Your task to perform on an android device: Search for seafood restaurants on Google Maps Image 0: 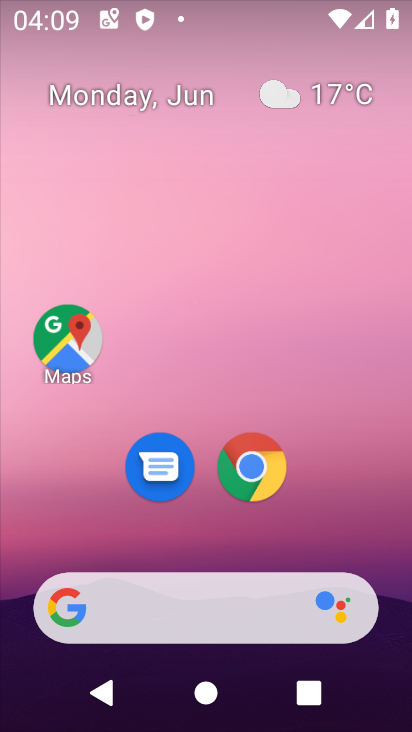
Step 0: click (259, 461)
Your task to perform on an android device: Search for seafood restaurants on Google Maps Image 1: 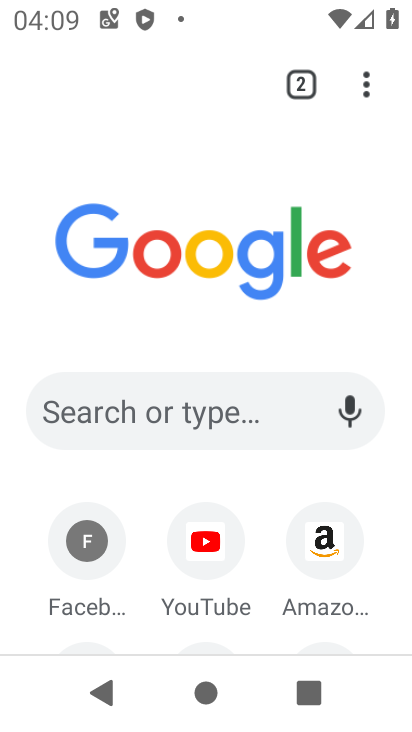
Step 1: press home button
Your task to perform on an android device: Search for seafood restaurants on Google Maps Image 2: 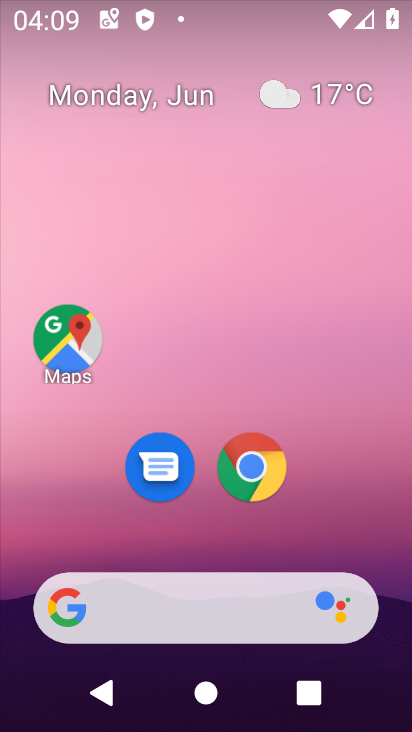
Step 2: click (73, 318)
Your task to perform on an android device: Search for seafood restaurants on Google Maps Image 3: 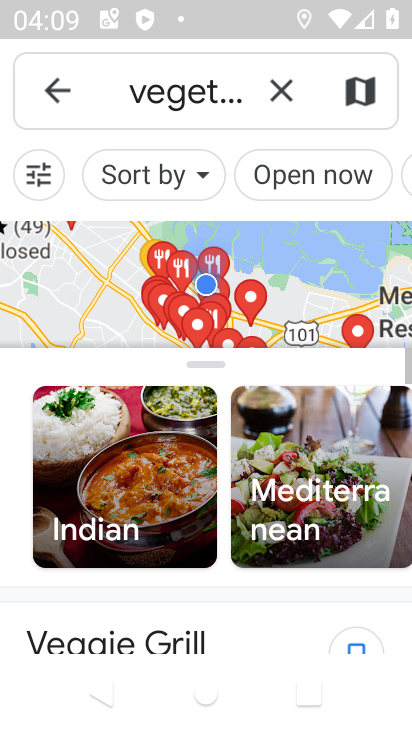
Step 3: click (281, 92)
Your task to perform on an android device: Search for seafood restaurants on Google Maps Image 4: 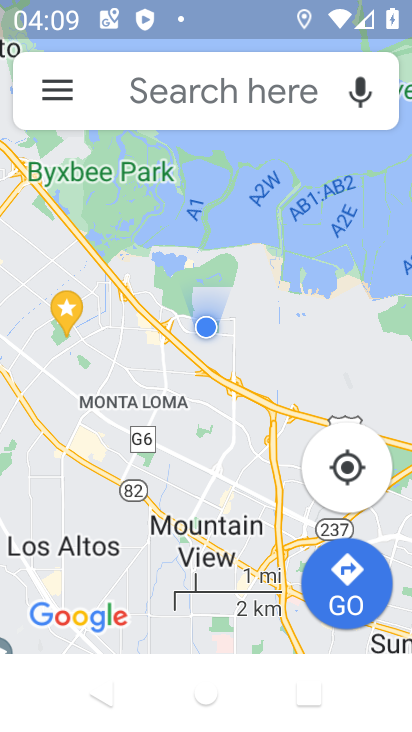
Step 4: click (198, 98)
Your task to perform on an android device: Search for seafood restaurants on Google Maps Image 5: 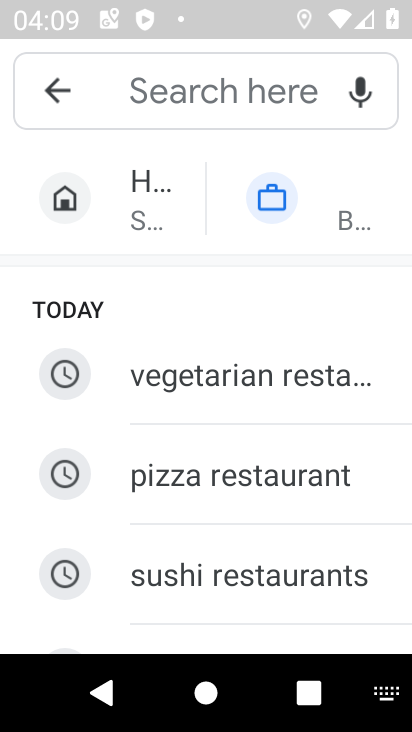
Step 5: type "seafood restaurants"
Your task to perform on an android device: Search for seafood restaurants on Google Maps Image 6: 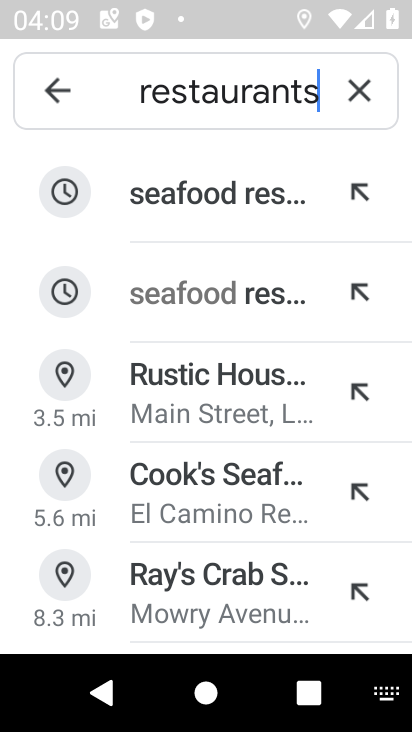
Step 6: click (197, 208)
Your task to perform on an android device: Search for seafood restaurants on Google Maps Image 7: 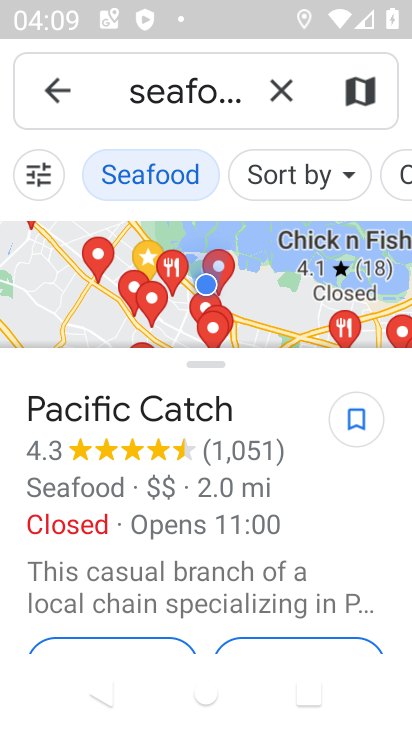
Step 7: task complete